Your task to perform on an android device: turn on airplane mode Image 0: 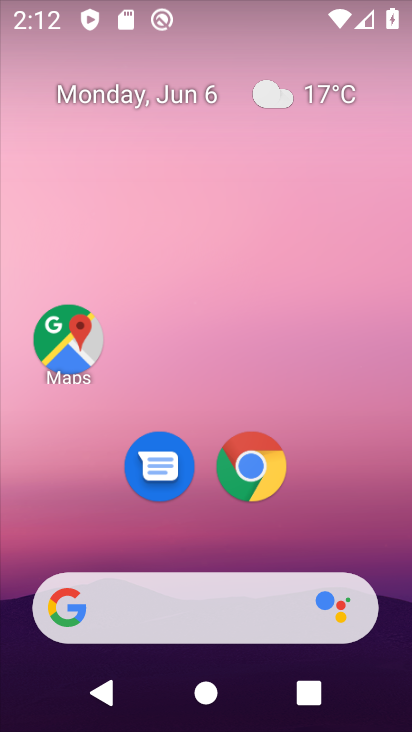
Step 0: drag from (256, 547) to (200, 140)
Your task to perform on an android device: turn on airplane mode Image 1: 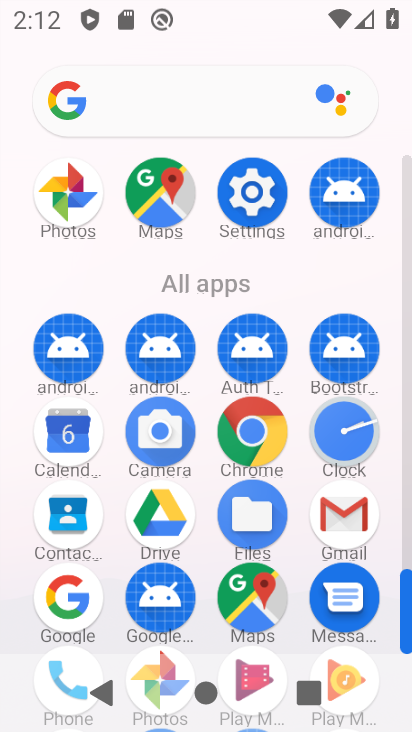
Step 1: click (248, 195)
Your task to perform on an android device: turn on airplane mode Image 2: 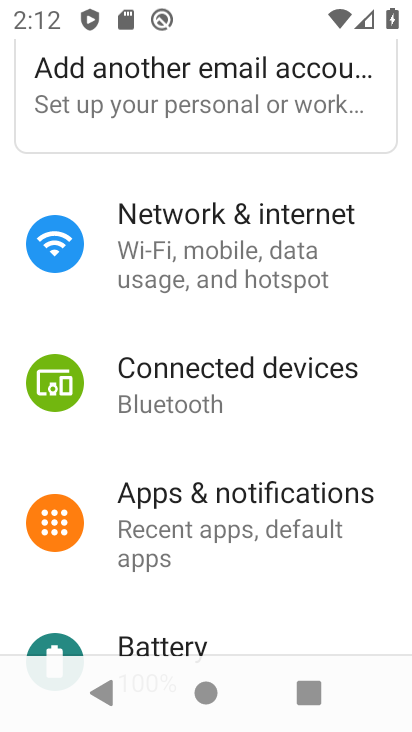
Step 2: drag from (230, 505) to (219, 211)
Your task to perform on an android device: turn on airplane mode Image 3: 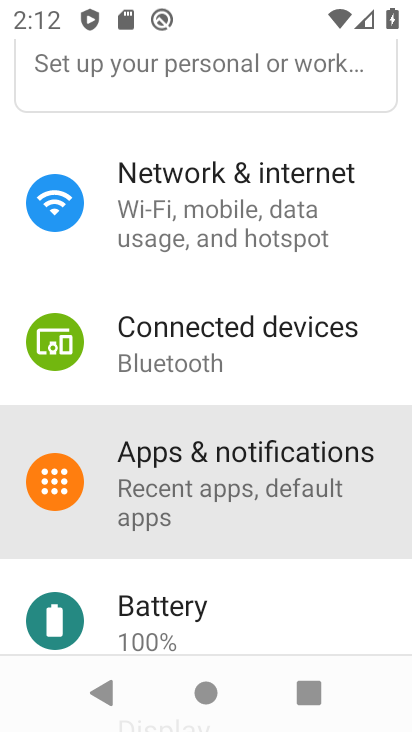
Step 3: drag from (212, 332) to (210, 134)
Your task to perform on an android device: turn on airplane mode Image 4: 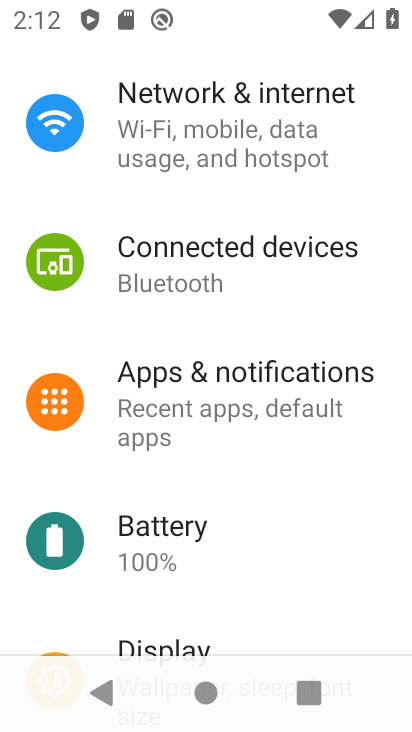
Step 4: click (214, 118)
Your task to perform on an android device: turn on airplane mode Image 5: 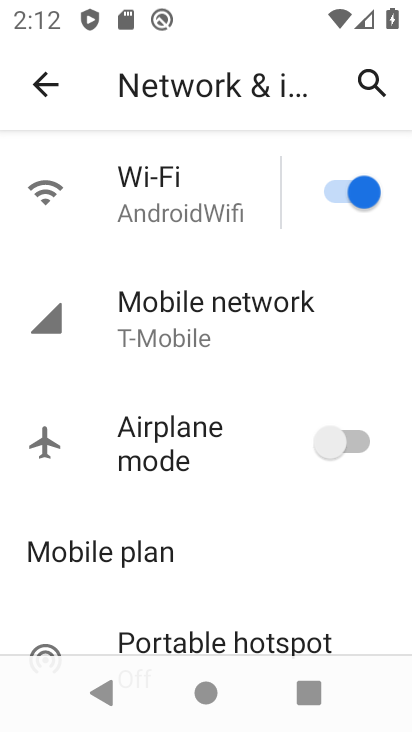
Step 5: click (340, 446)
Your task to perform on an android device: turn on airplane mode Image 6: 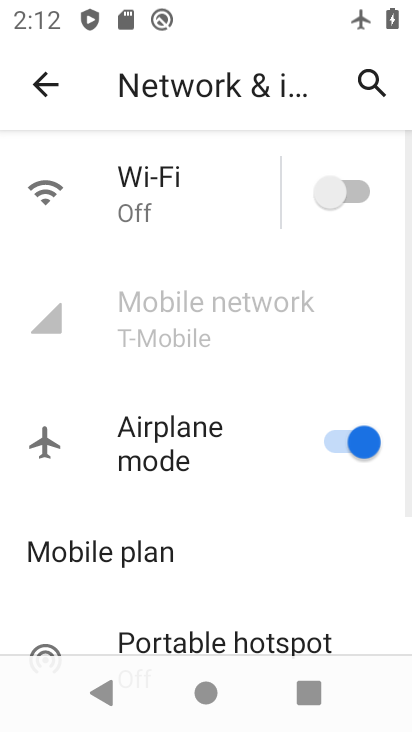
Step 6: task complete